Your task to perform on an android device: Go to Yahoo.com Image 0: 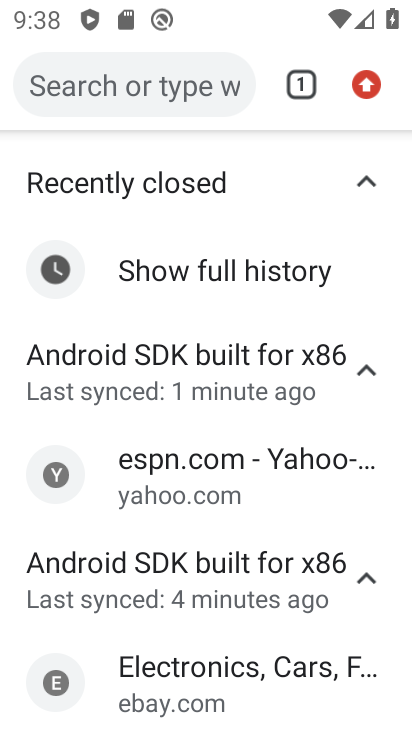
Step 0: press back button
Your task to perform on an android device: Go to Yahoo.com Image 1: 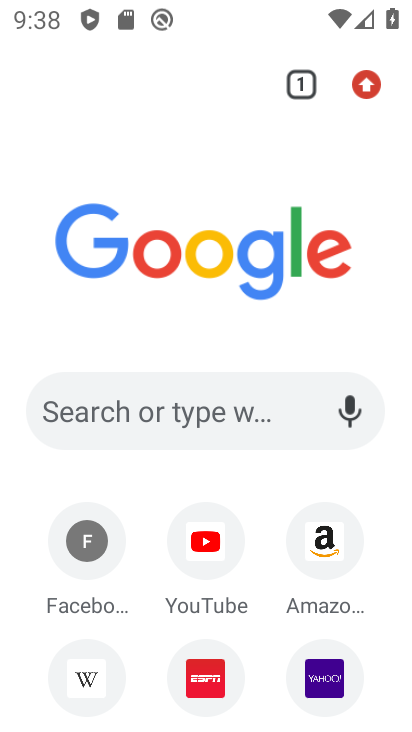
Step 1: click (314, 678)
Your task to perform on an android device: Go to Yahoo.com Image 2: 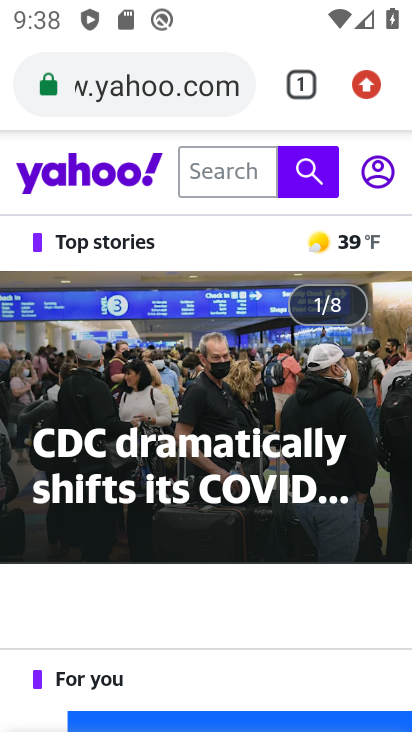
Step 2: drag from (177, 626) to (172, 140)
Your task to perform on an android device: Go to Yahoo.com Image 3: 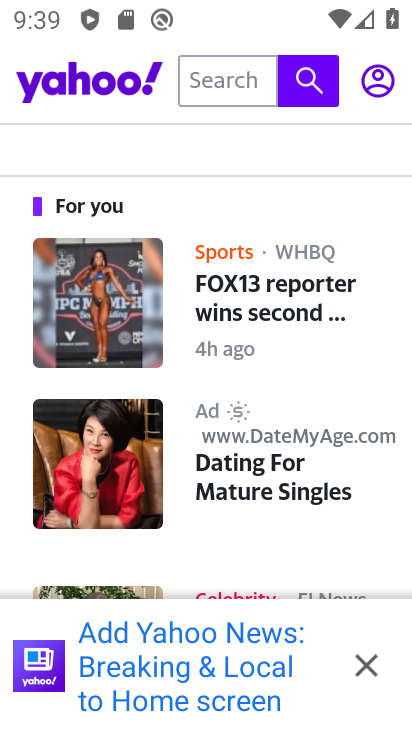
Step 3: click (362, 675)
Your task to perform on an android device: Go to Yahoo.com Image 4: 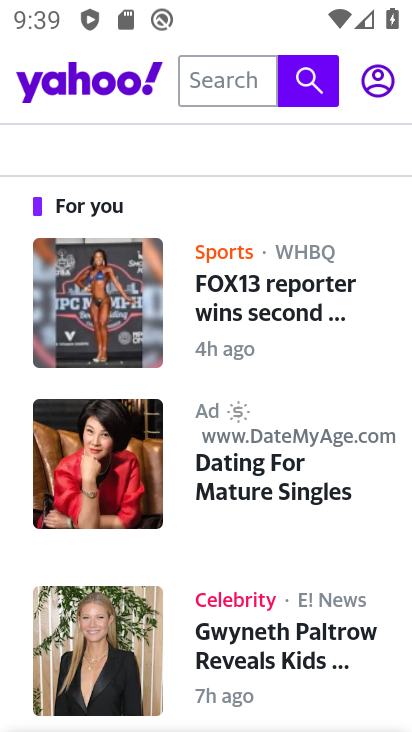
Step 4: task complete